Your task to perform on an android device: Go to Yahoo.com Image 0: 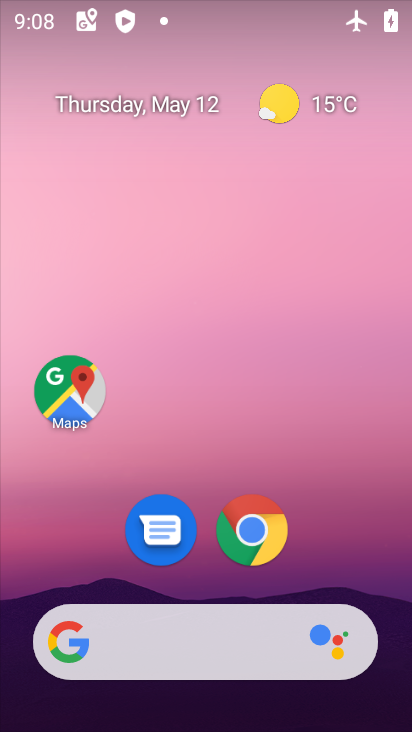
Step 0: click (247, 637)
Your task to perform on an android device: Go to Yahoo.com Image 1: 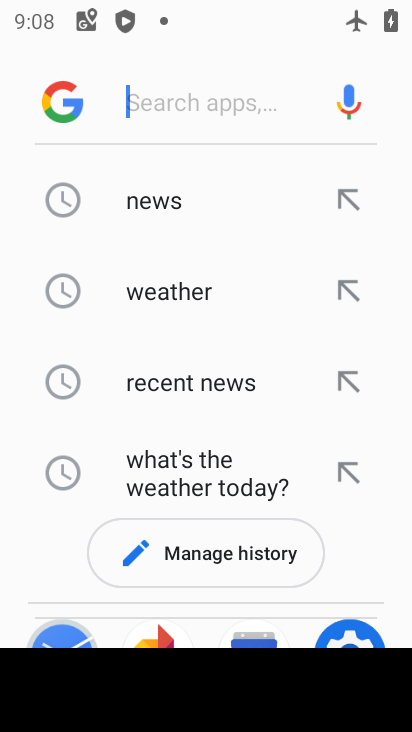
Step 1: type "yahoo.com"
Your task to perform on an android device: Go to Yahoo.com Image 2: 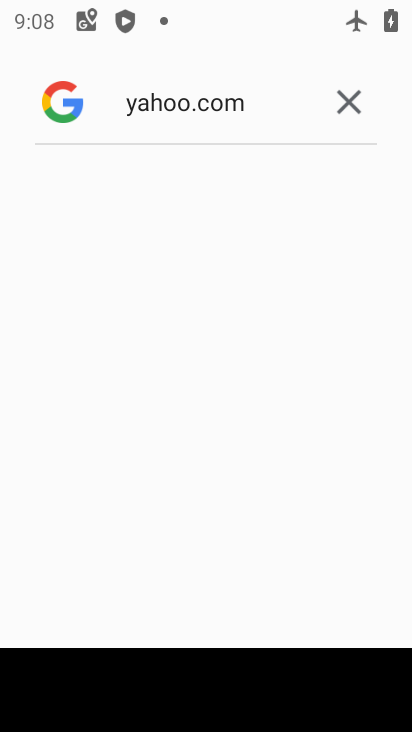
Step 2: task complete